Your task to perform on an android device: set the stopwatch Image 0: 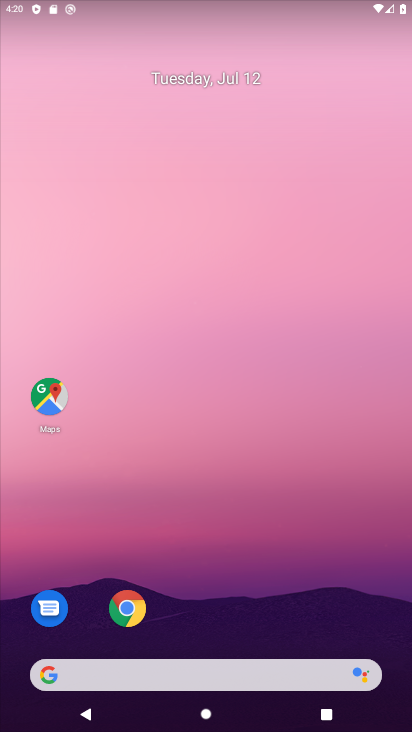
Step 0: drag from (296, 571) to (270, 31)
Your task to perform on an android device: set the stopwatch Image 1: 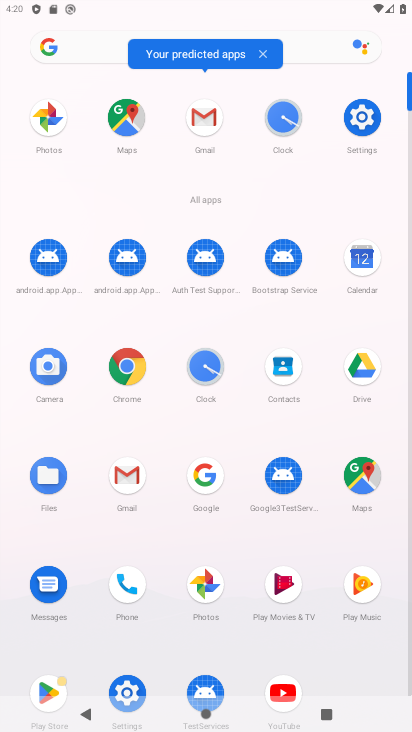
Step 1: click (212, 370)
Your task to perform on an android device: set the stopwatch Image 2: 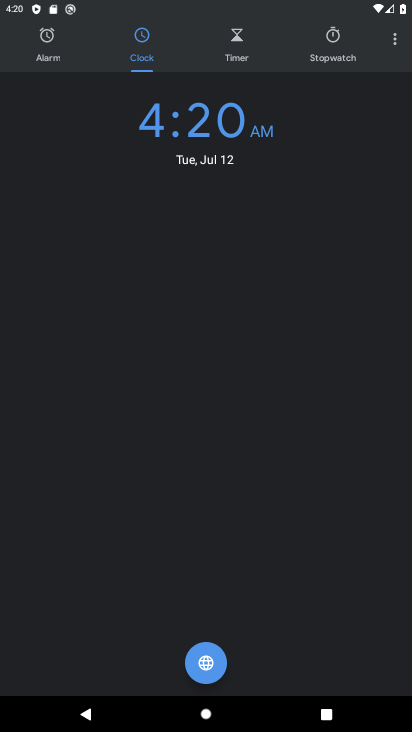
Step 2: click (348, 52)
Your task to perform on an android device: set the stopwatch Image 3: 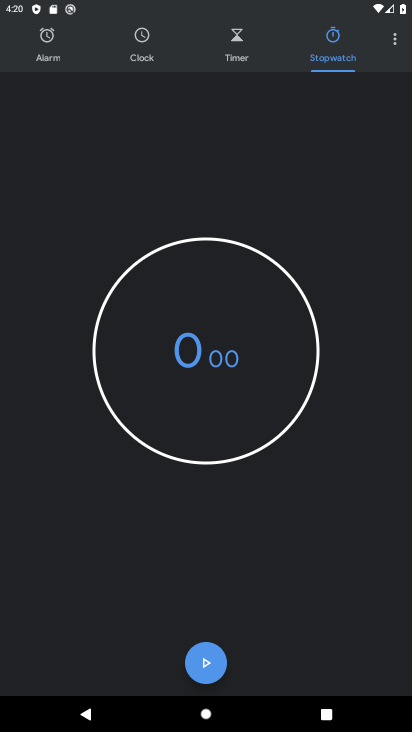
Step 3: click (204, 660)
Your task to perform on an android device: set the stopwatch Image 4: 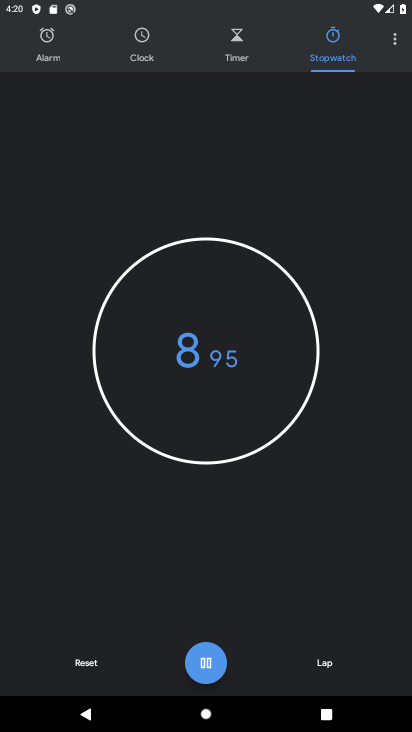
Step 4: task complete